Your task to perform on an android device: Go to Reddit.com Image 0: 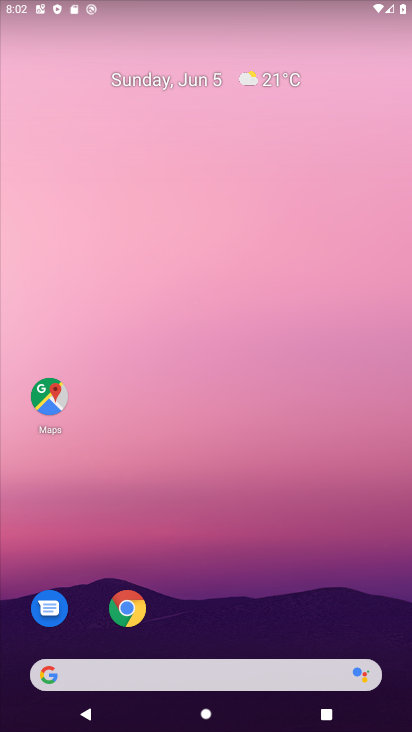
Step 0: drag from (344, 580) to (342, 210)
Your task to perform on an android device: Go to Reddit.com Image 1: 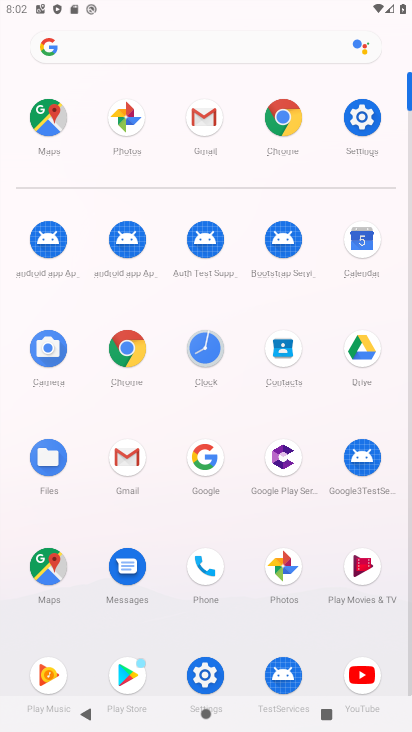
Step 1: click (135, 356)
Your task to perform on an android device: Go to Reddit.com Image 2: 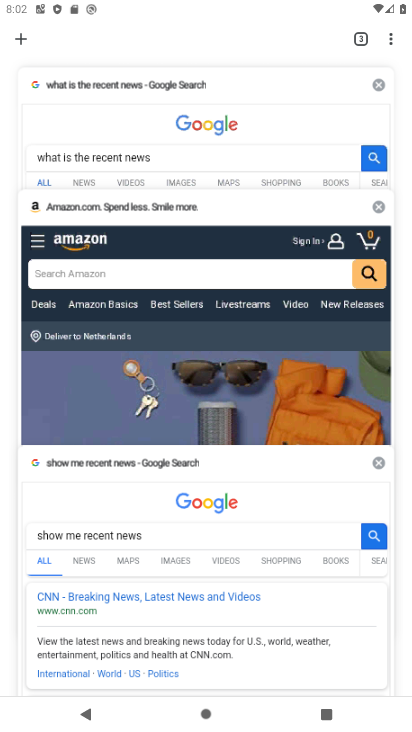
Step 2: click (29, 48)
Your task to perform on an android device: Go to Reddit.com Image 3: 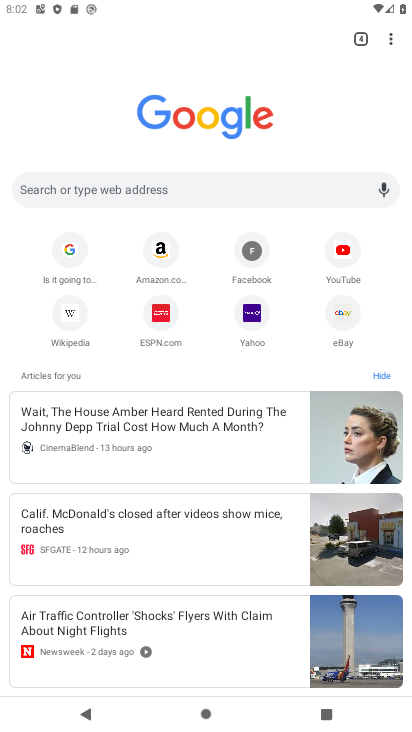
Step 3: click (126, 184)
Your task to perform on an android device: Go to Reddit.com Image 4: 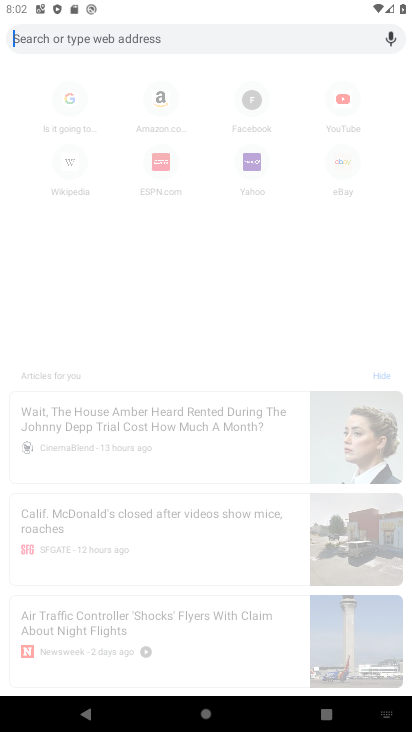
Step 4: type "reddit.com"
Your task to perform on an android device: Go to Reddit.com Image 5: 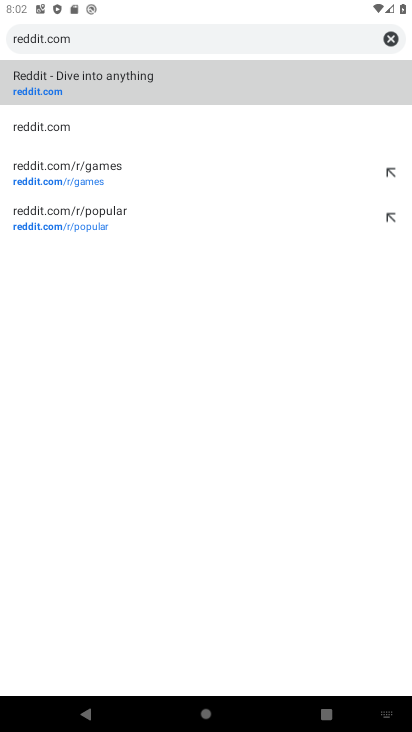
Step 5: click (36, 90)
Your task to perform on an android device: Go to Reddit.com Image 6: 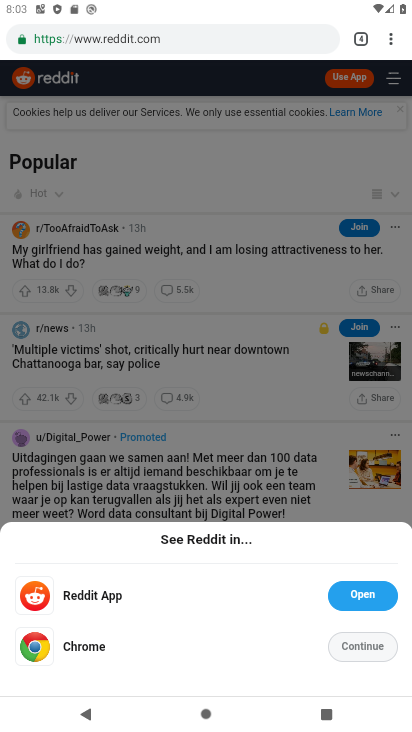
Step 6: task complete